Your task to perform on an android device: Open ESPN.com Image 0: 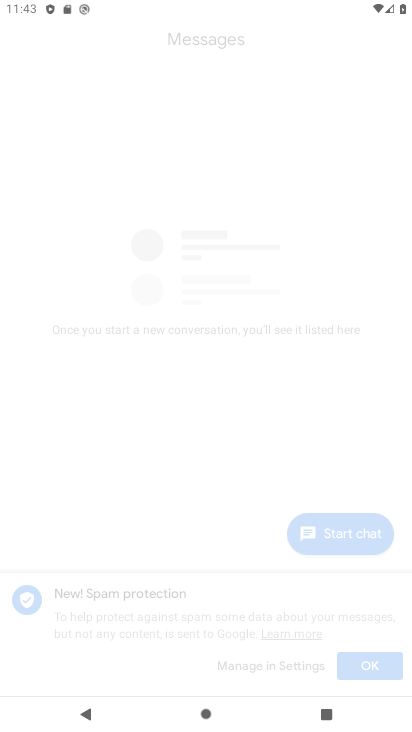
Step 0: drag from (230, 572) to (297, 118)
Your task to perform on an android device: Open ESPN.com Image 1: 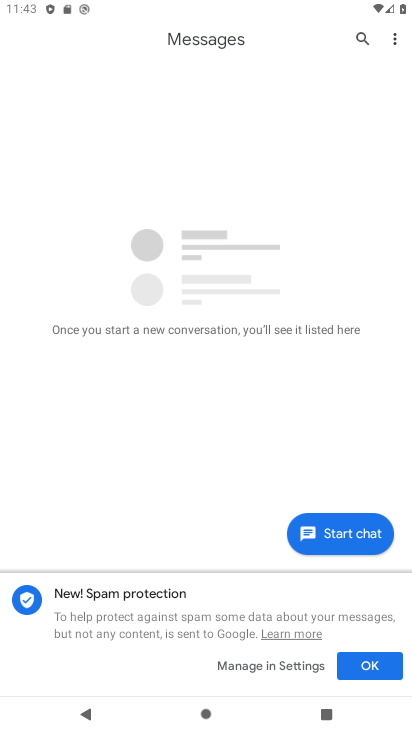
Step 1: press home button
Your task to perform on an android device: Open ESPN.com Image 2: 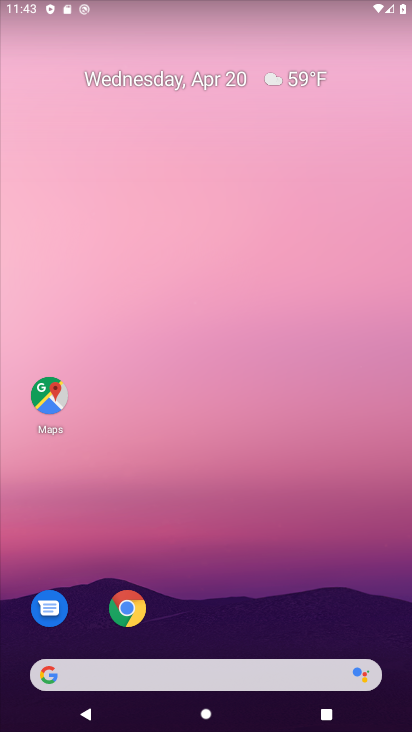
Step 2: drag from (247, 584) to (259, 80)
Your task to perform on an android device: Open ESPN.com Image 3: 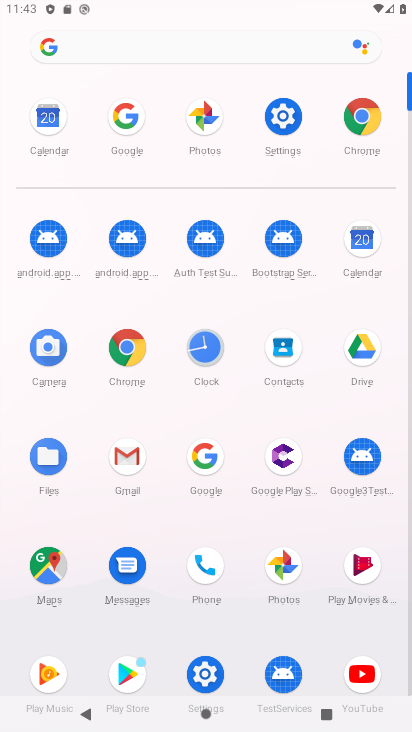
Step 3: click (208, 455)
Your task to perform on an android device: Open ESPN.com Image 4: 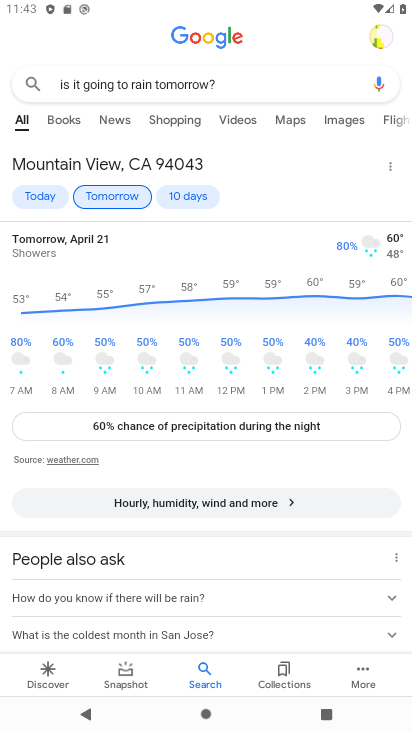
Step 4: click (283, 80)
Your task to perform on an android device: Open ESPN.com Image 5: 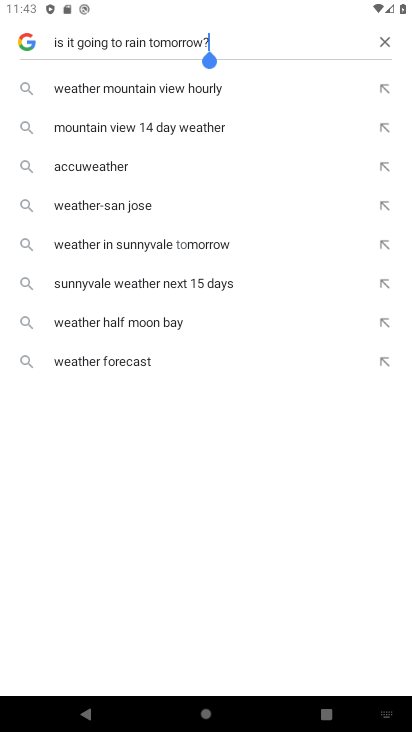
Step 5: click (386, 43)
Your task to perform on an android device: Open ESPN.com Image 6: 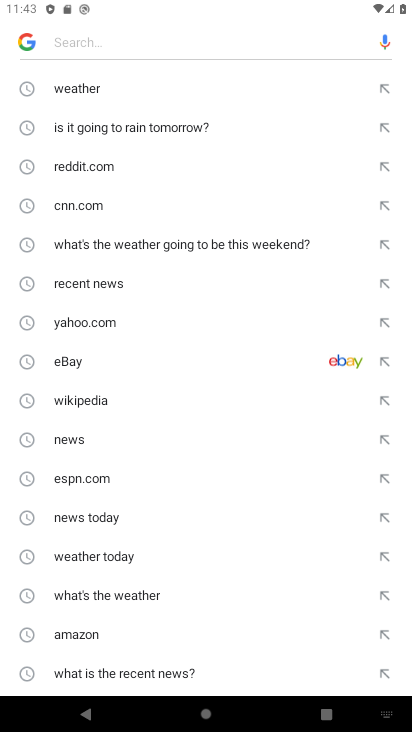
Step 6: type "espn.com"
Your task to perform on an android device: Open ESPN.com Image 7: 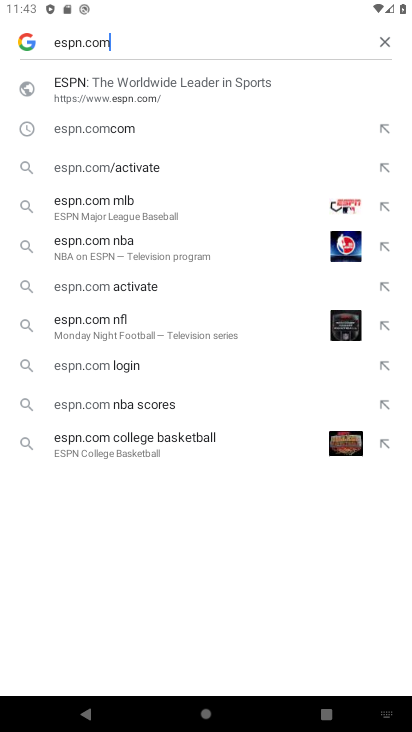
Step 7: click (145, 91)
Your task to perform on an android device: Open ESPN.com Image 8: 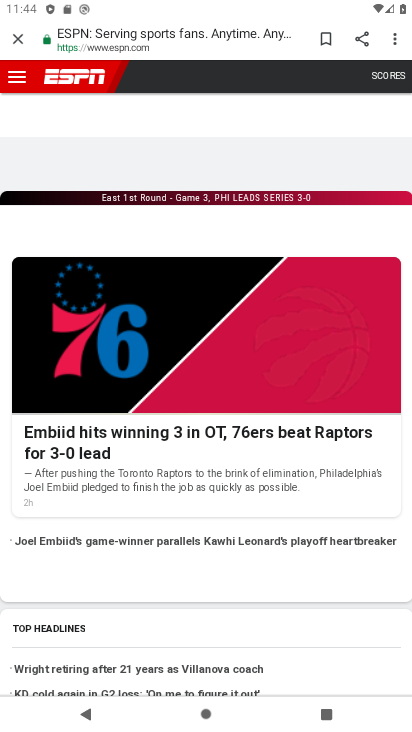
Step 8: task complete